Your task to perform on an android device: toggle sleep mode Image 0: 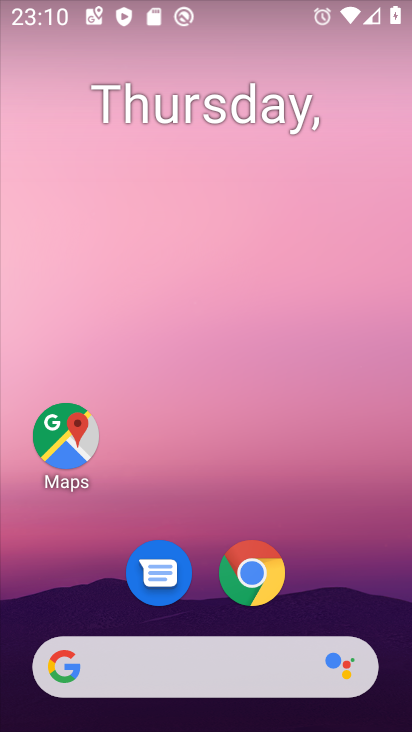
Step 0: drag from (317, 558) to (319, 133)
Your task to perform on an android device: toggle sleep mode Image 1: 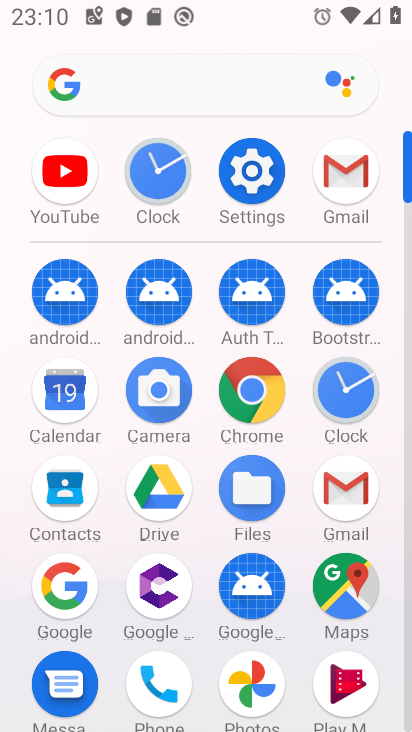
Step 1: click (253, 167)
Your task to perform on an android device: toggle sleep mode Image 2: 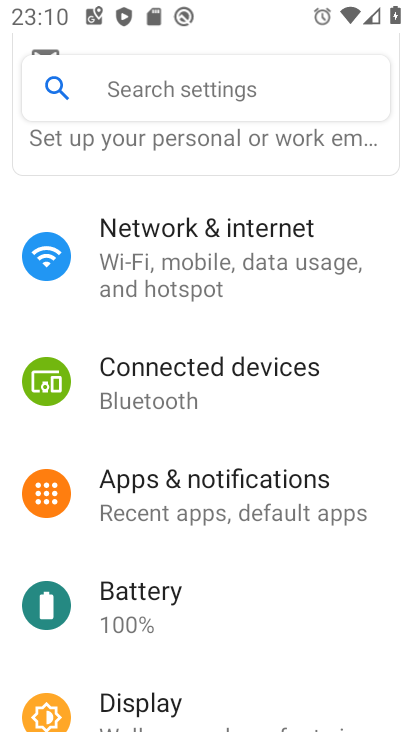
Step 2: click (120, 687)
Your task to perform on an android device: toggle sleep mode Image 3: 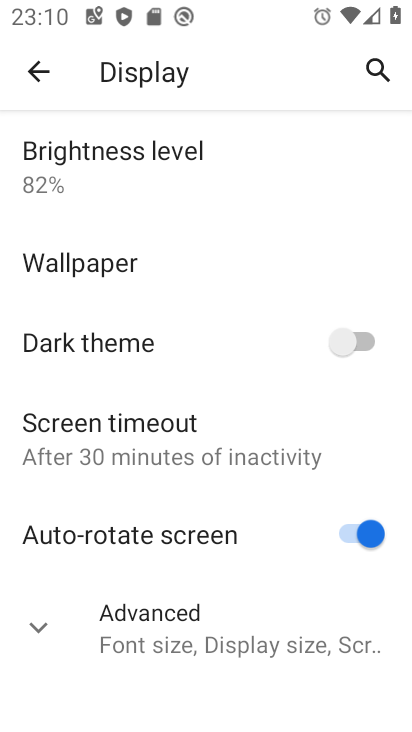
Step 3: click (291, 422)
Your task to perform on an android device: toggle sleep mode Image 4: 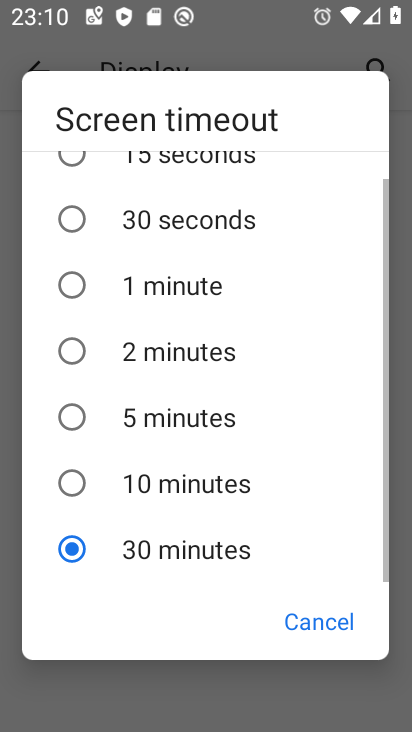
Step 4: click (211, 477)
Your task to perform on an android device: toggle sleep mode Image 5: 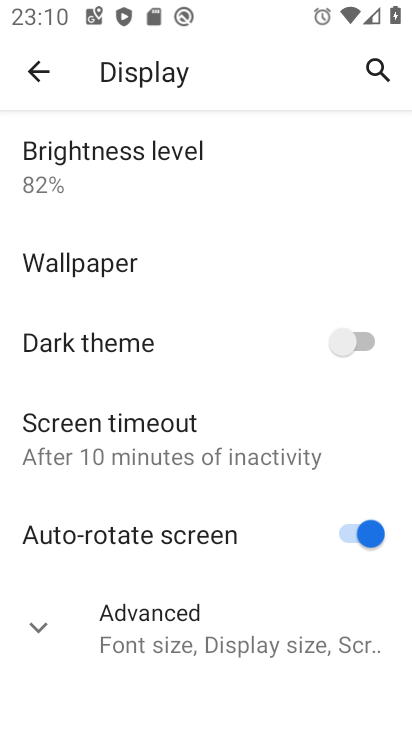
Step 5: task complete